Your task to perform on an android device: change text size in settings app Image 0: 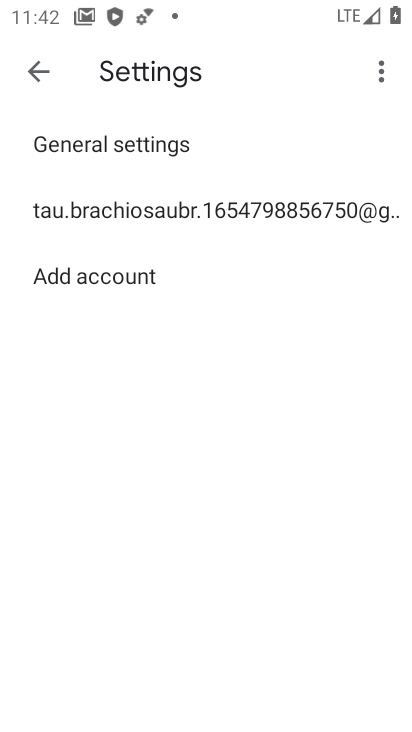
Step 0: press home button
Your task to perform on an android device: change text size in settings app Image 1: 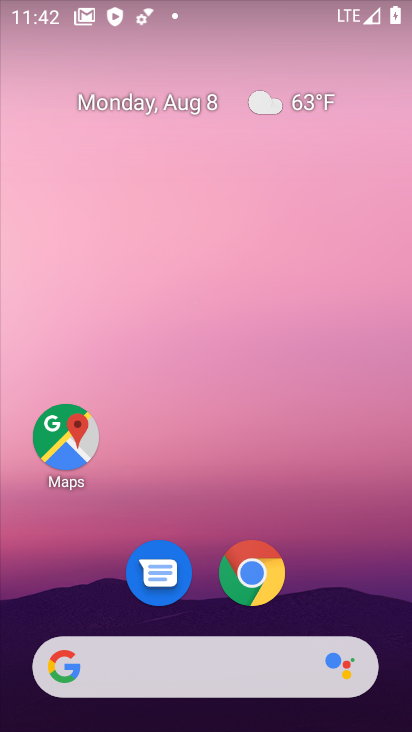
Step 1: drag from (106, 632) to (9, 157)
Your task to perform on an android device: change text size in settings app Image 2: 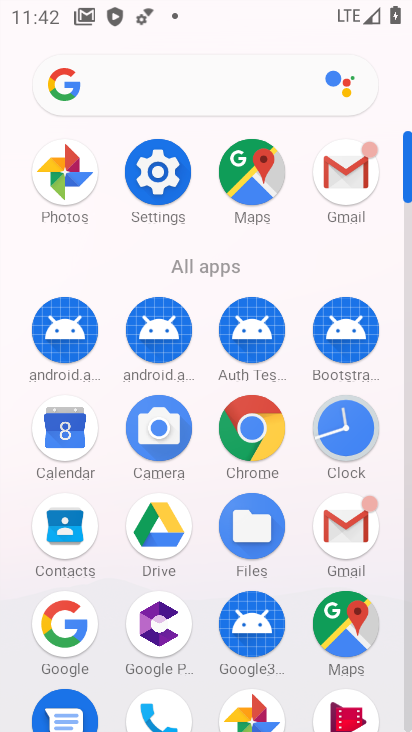
Step 2: click (150, 175)
Your task to perform on an android device: change text size in settings app Image 3: 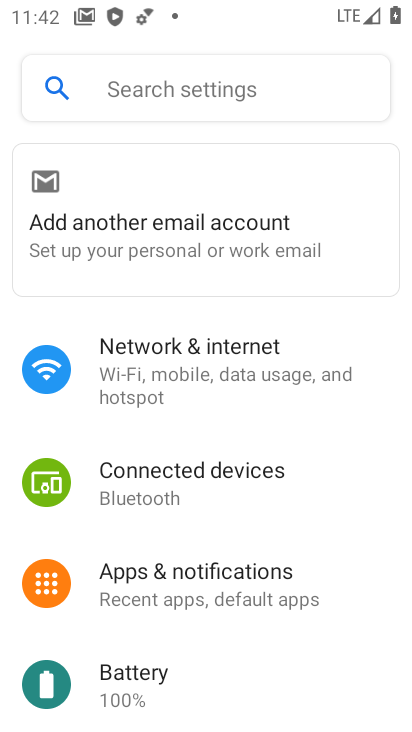
Step 3: drag from (277, 631) to (256, 282)
Your task to perform on an android device: change text size in settings app Image 4: 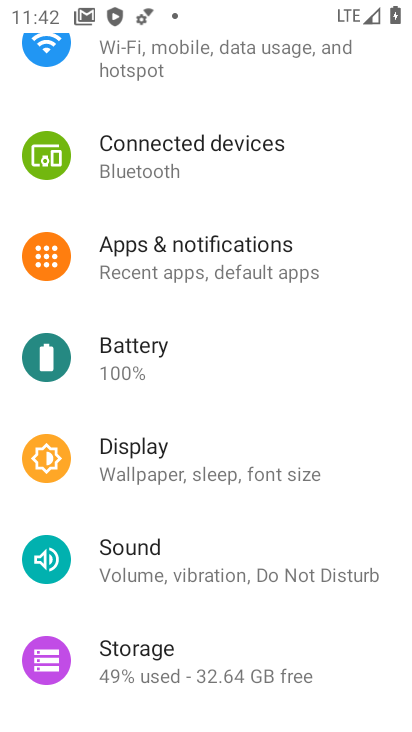
Step 4: drag from (252, 646) to (118, 253)
Your task to perform on an android device: change text size in settings app Image 5: 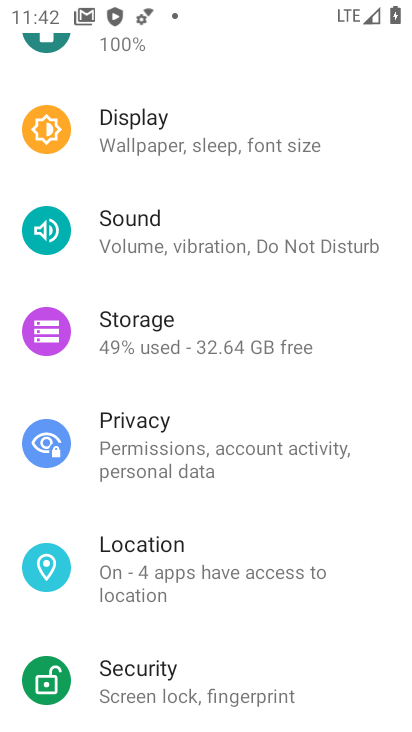
Step 5: drag from (321, 687) to (74, 185)
Your task to perform on an android device: change text size in settings app Image 6: 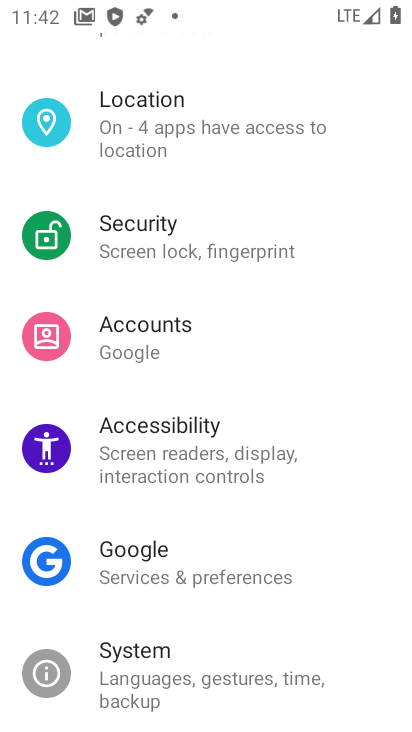
Step 6: click (170, 460)
Your task to perform on an android device: change text size in settings app Image 7: 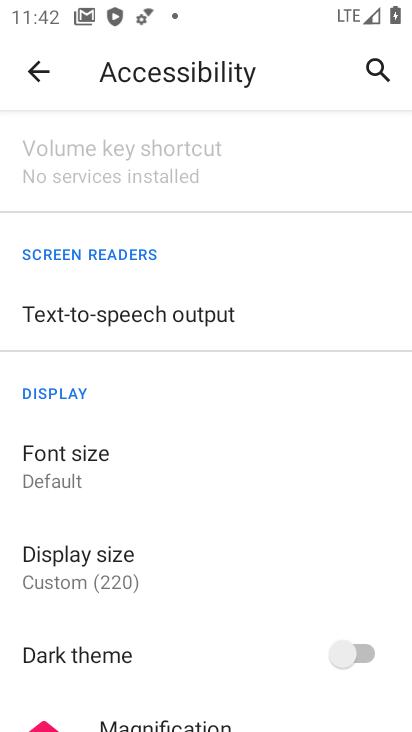
Step 7: click (87, 459)
Your task to perform on an android device: change text size in settings app Image 8: 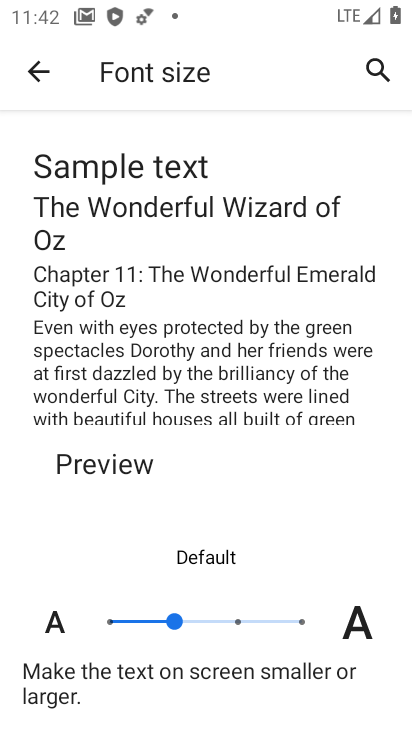
Step 8: click (235, 618)
Your task to perform on an android device: change text size in settings app Image 9: 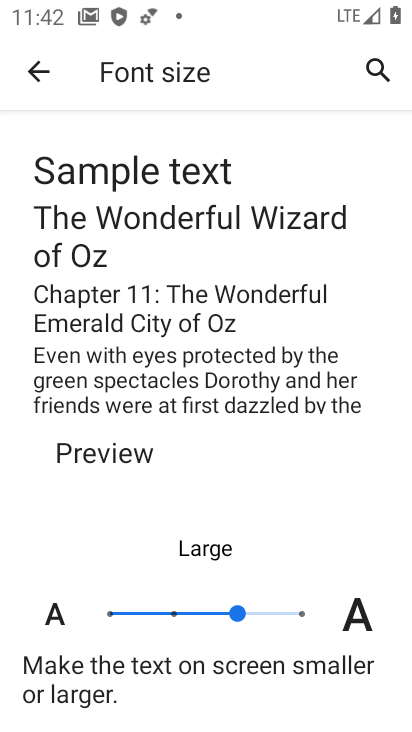
Step 9: task complete